Your task to perform on an android device: empty trash in the gmail app Image 0: 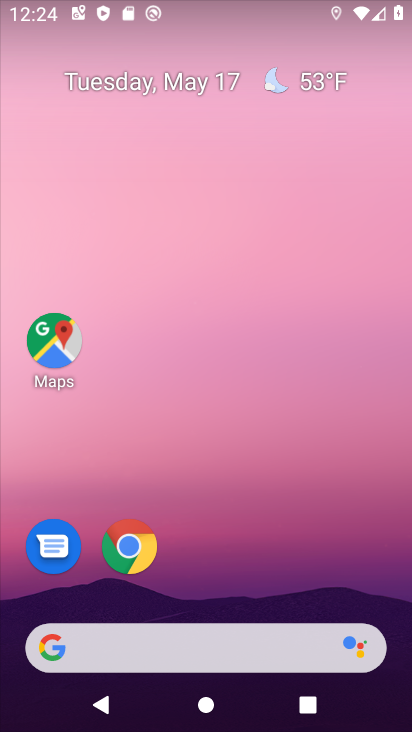
Step 0: drag from (210, 547) to (194, 148)
Your task to perform on an android device: empty trash in the gmail app Image 1: 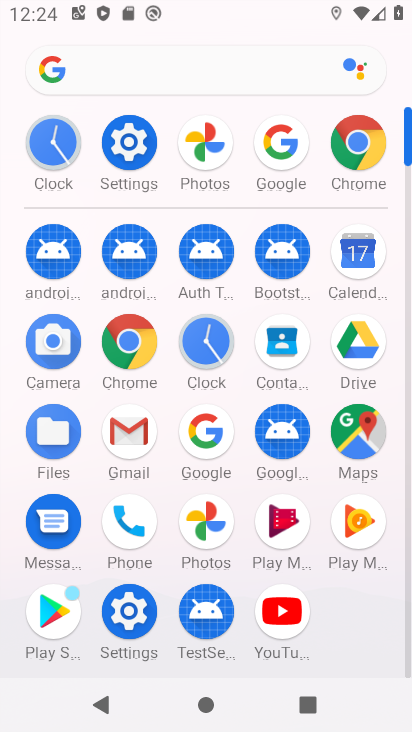
Step 1: click (129, 440)
Your task to perform on an android device: empty trash in the gmail app Image 2: 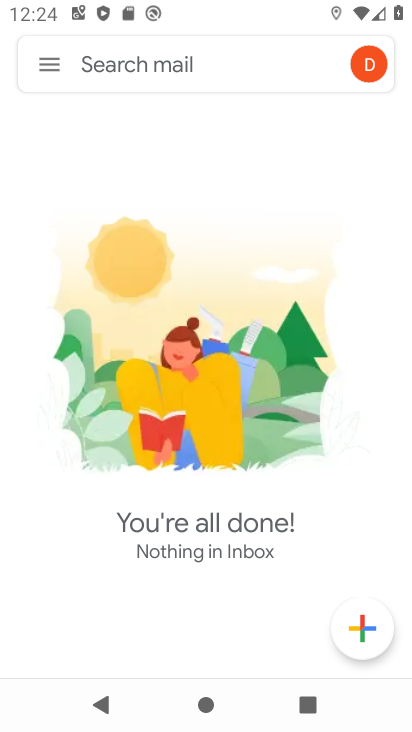
Step 2: click (38, 60)
Your task to perform on an android device: empty trash in the gmail app Image 3: 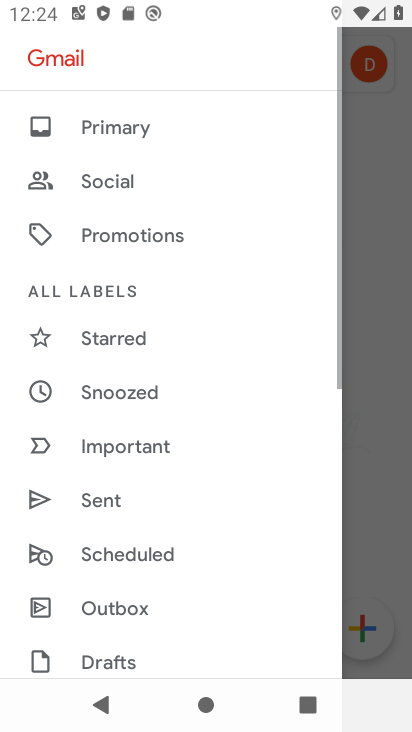
Step 3: drag from (154, 507) to (124, 110)
Your task to perform on an android device: empty trash in the gmail app Image 4: 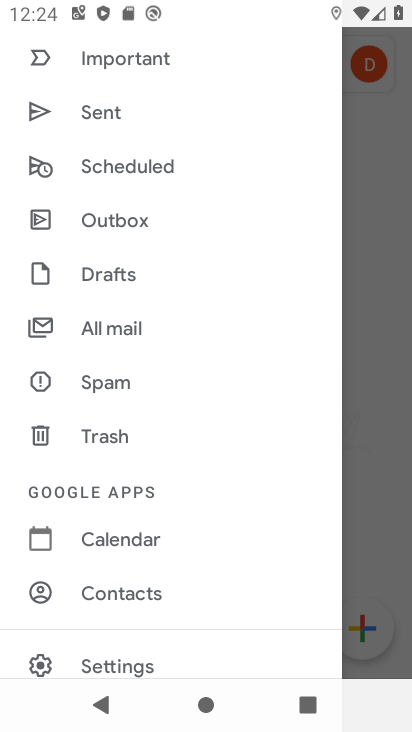
Step 4: click (93, 440)
Your task to perform on an android device: empty trash in the gmail app Image 5: 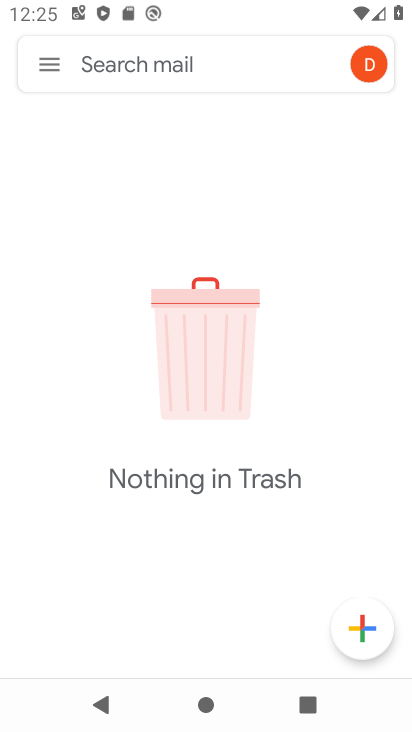
Step 5: task complete